Your task to perform on an android device: Open the calendar app, open the side menu, and click the "Day" option Image 0: 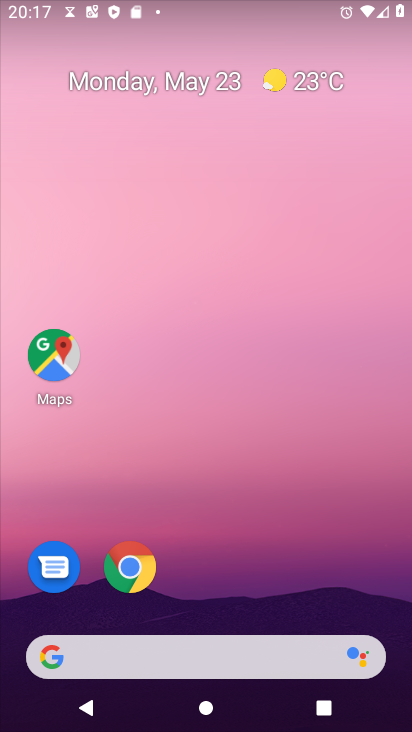
Step 0: drag from (252, 605) to (263, 290)
Your task to perform on an android device: Open the calendar app, open the side menu, and click the "Day" option Image 1: 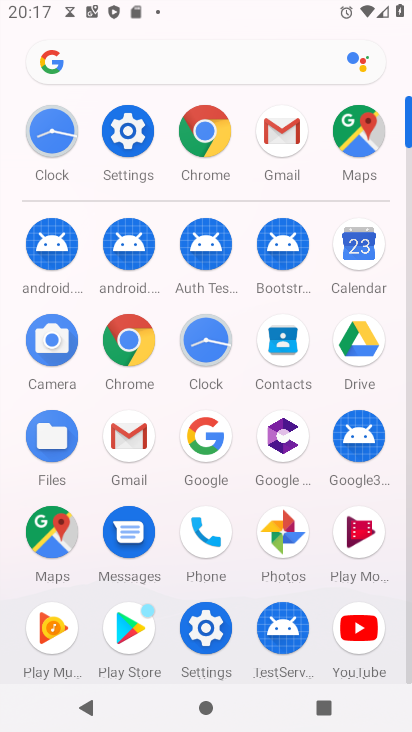
Step 1: click (361, 245)
Your task to perform on an android device: Open the calendar app, open the side menu, and click the "Day" option Image 2: 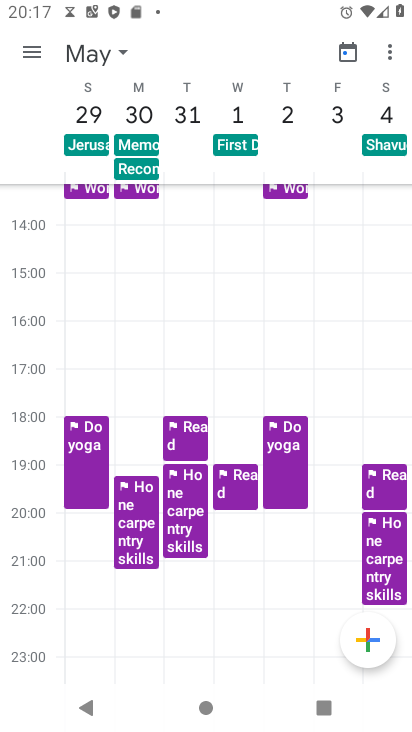
Step 2: click (36, 56)
Your task to perform on an android device: Open the calendar app, open the side menu, and click the "Day" option Image 3: 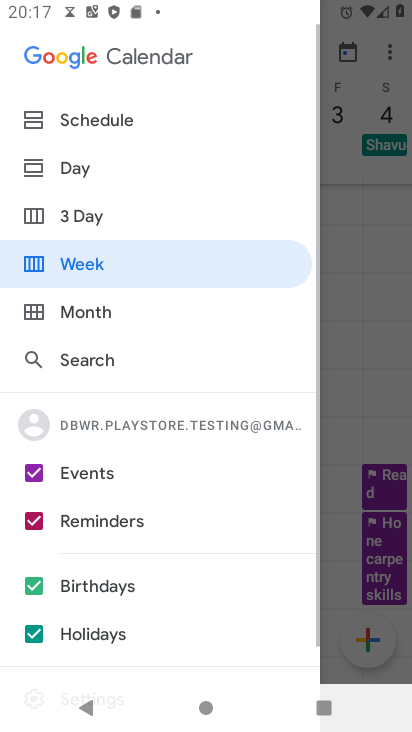
Step 3: click (80, 173)
Your task to perform on an android device: Open the calendar app, open the side menu, and click the "Day" option Image 4: 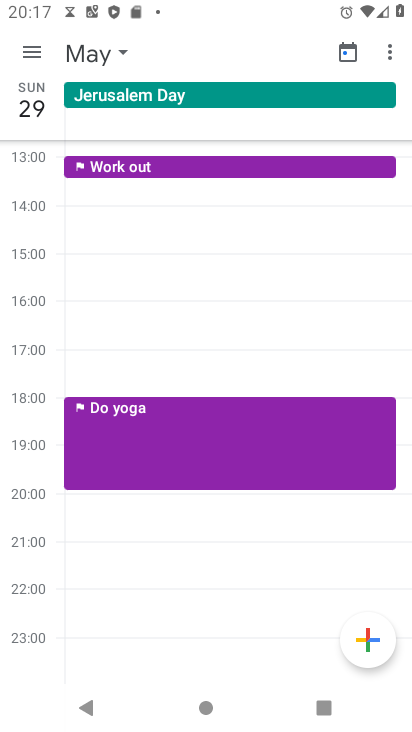
Step 4: task complete